Your task to perform on an android device: Go to Wikipedia Image 0: 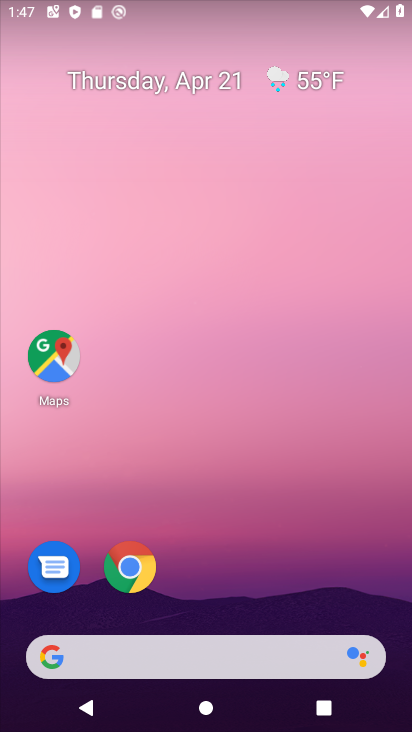
Step 0: click (133, 565)
Your task to perform on an android device: Go to Wikipedia Image 1: 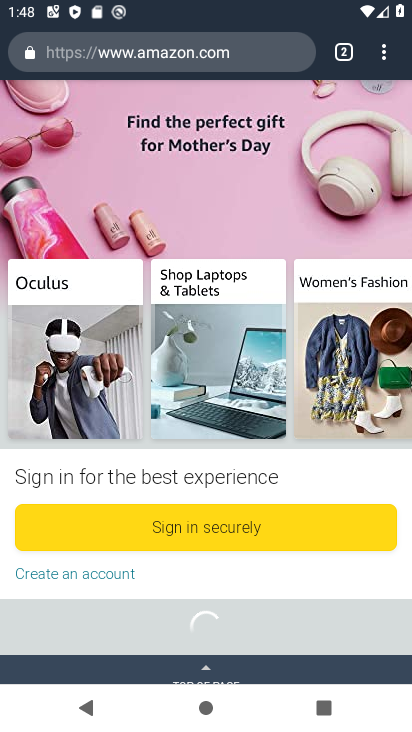
Step 1: click (338, 53)
Your task to perform on an android device: Go to Wikipedia Image 2: 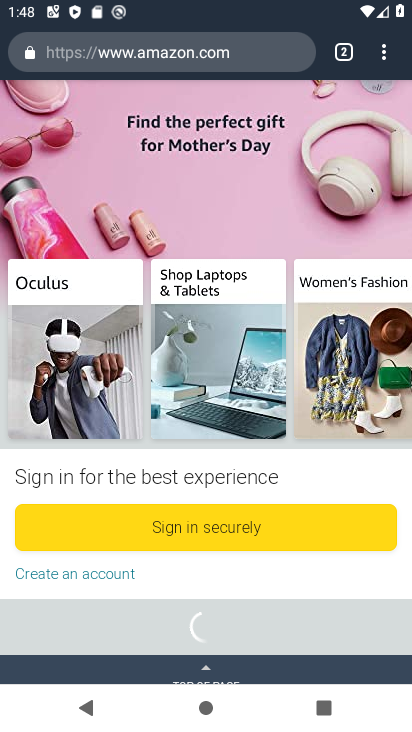
Step 2: click (343, 46)
Your task to perform on an android device: Go to Wikipedia Image 3: 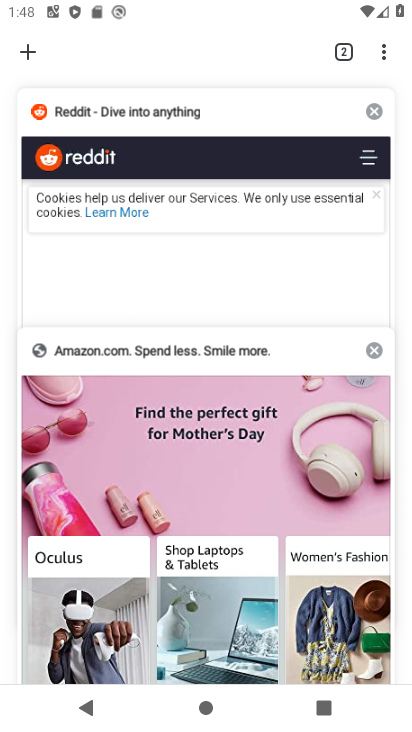
Step 3: click (25, 50)
Your task to perform on an android device: Go to Wikipedia Image 4: 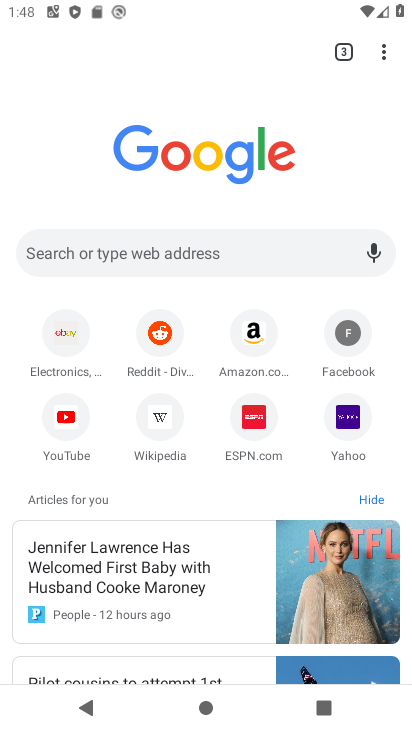
Step 4: click (158, 418)
Your task to perform on an android device: Go to Wikipedia Image 5: 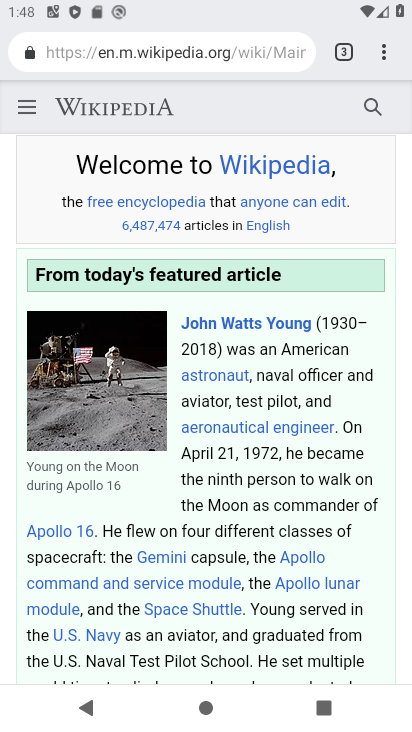
Step 5: task complete